Your task to perform on an android device: toggle improve location accuracy Image 0: 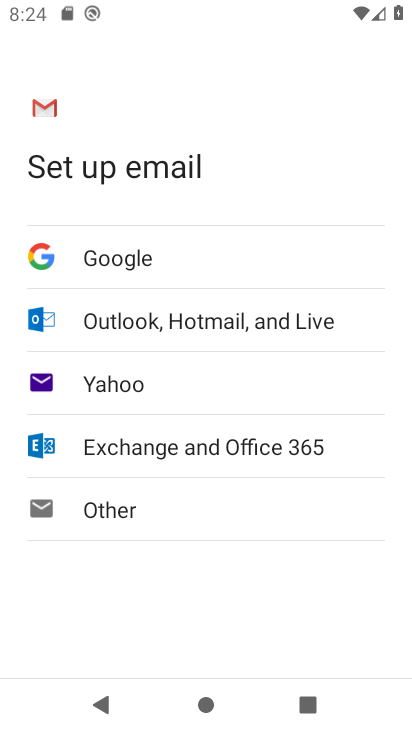
Step 0: press home button
Your task to perform on an android device: toggle improve location accuracy Image 1: 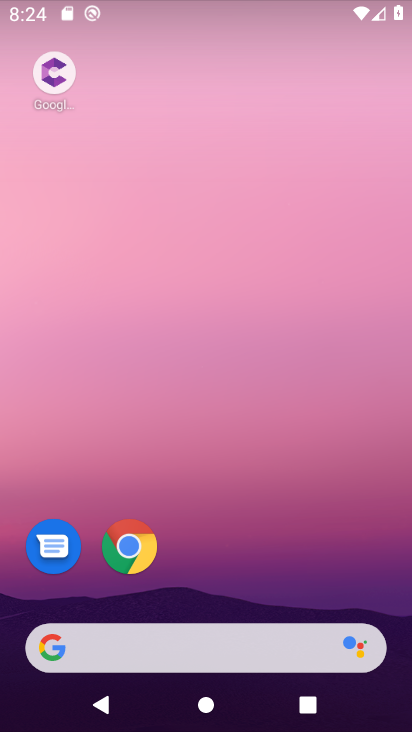
Step 1: drag from (209, 582) to (230, 27)
Your task to perform on an android device: toggle improve location accuracy Image 2: 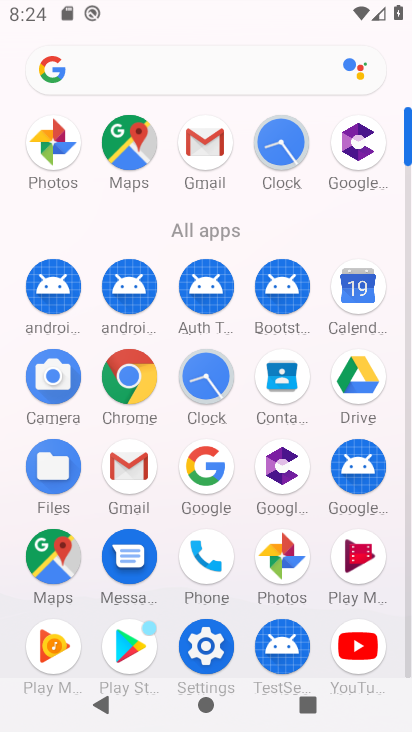
Step 2: click (199, 639)
Your task to perform on an android device: toggle improve location accuracy Image 3: 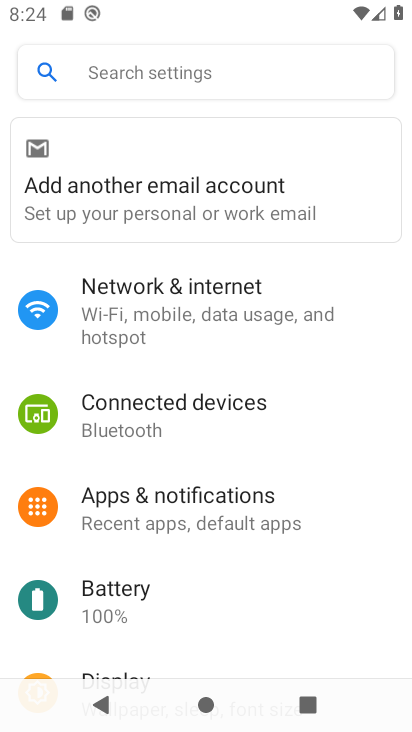
Step 3: drag from (218, 528) to (243, 84)
Your task to perform on an android device: toggle improve location accuracy Image 4: 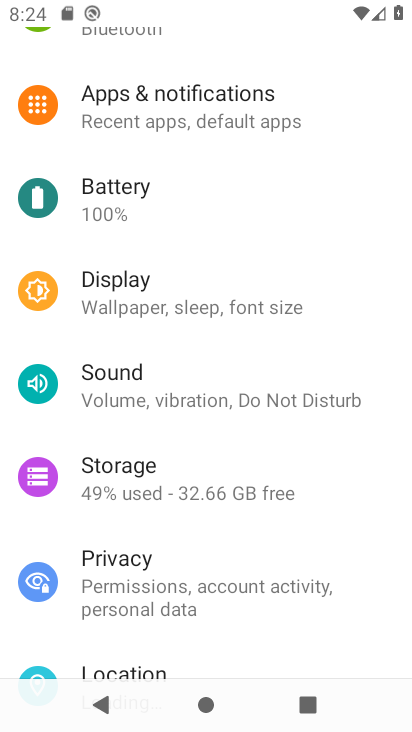
Step 4: click (132, 652)
Your task to perform on an android device: toggle improve location accuracy Image 5: 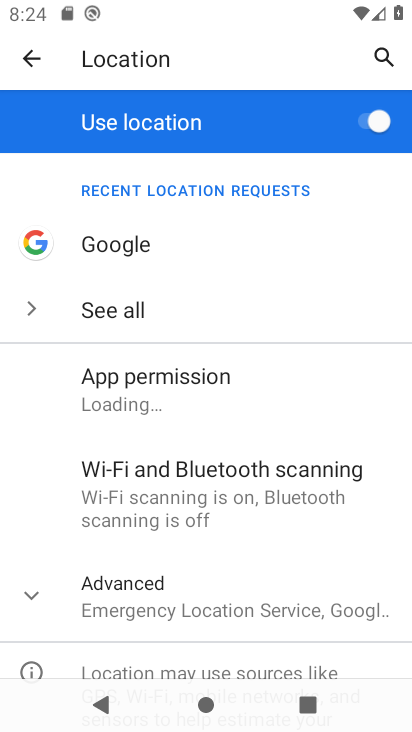
Step 5: click (132, 602)
Your task to perform on an android device: toggle improve location accuracy Image 6: 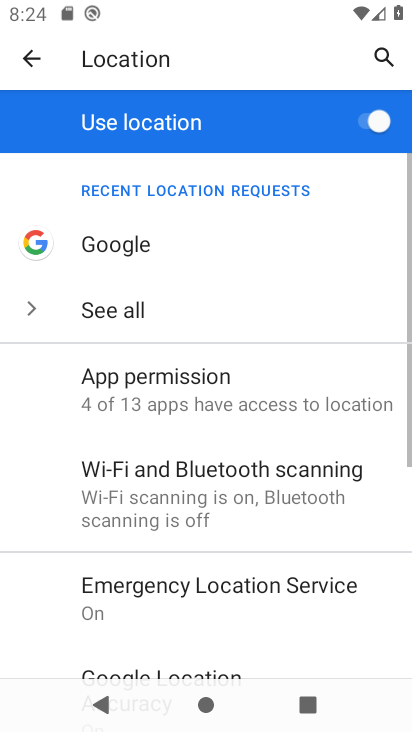
Step 6: drag from (134, 591) to (177, 239)
Your task to perform on an android device: toggle improve location accuracy Image 7: 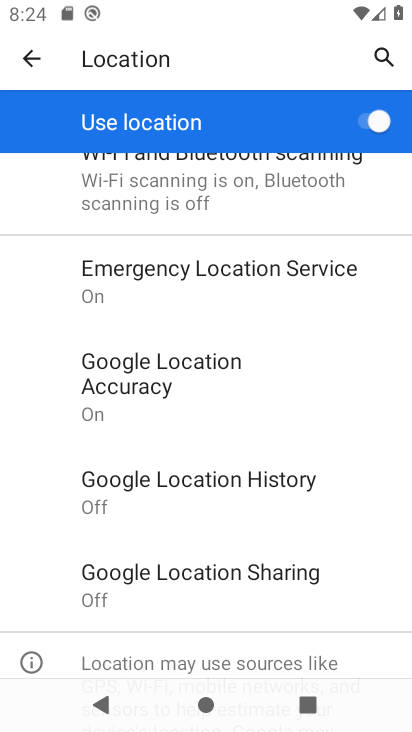
Step 7: click (170, 358)
Your task to perform on an android device: toggle improve location accuracy Image 8: 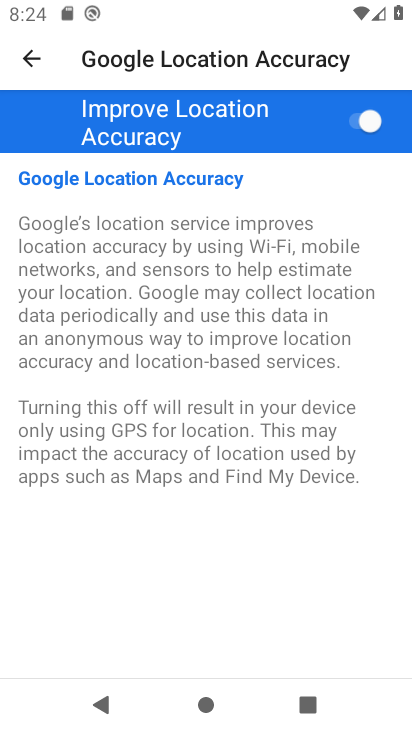
Step 8: click (339, 127)
Your task to perform on an android device: toggle improve location accuracy Image 9: 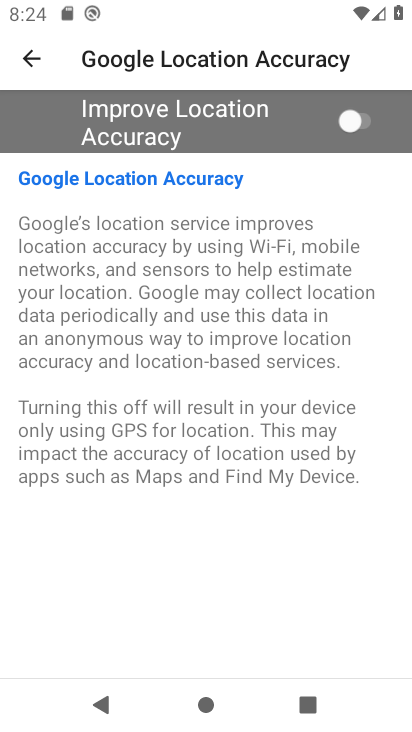
Step 9: task complete